Your task to perform on an android device: Do I have any events today? Image 0: 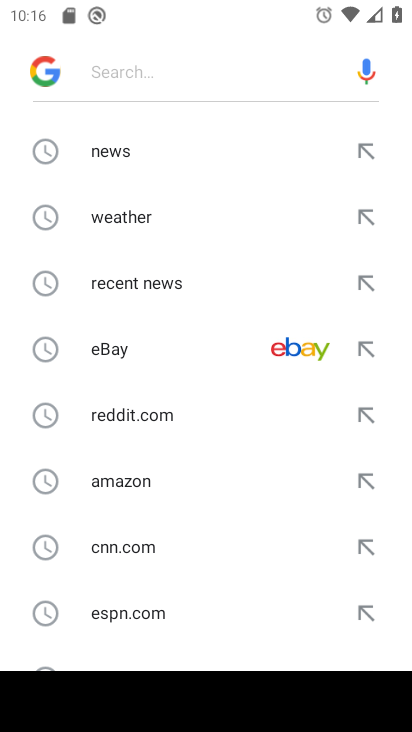
Step 0: press home button
Your task to perform on an android device: Do I have any events today? Image 1: 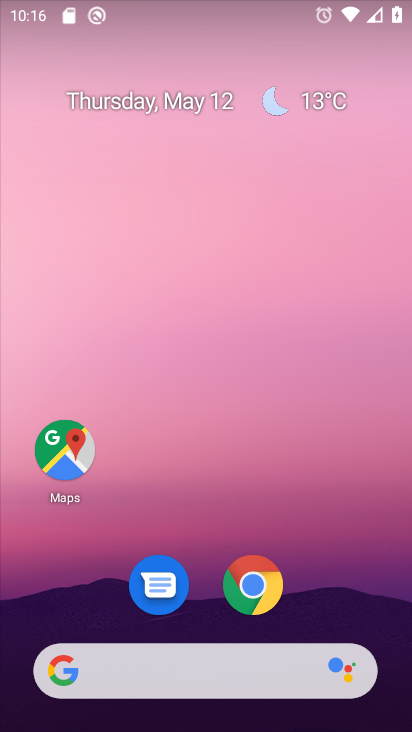
Step 1: drag from (180, 531) to (211, 131)
Your task to perform on an android device: Do I have any events today? Image 2: 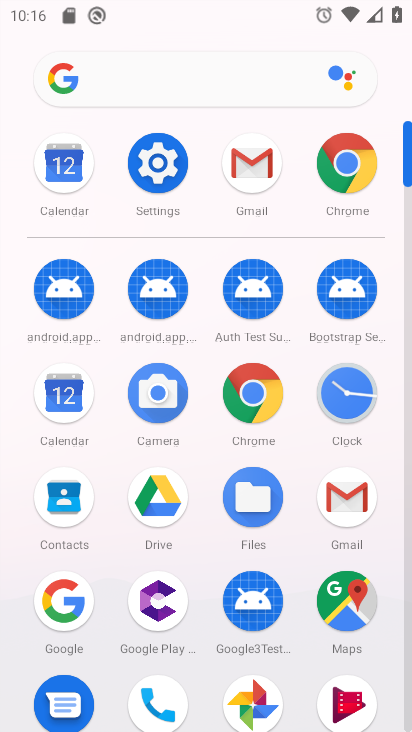
Step 2: click (79, 161)
Your task to perform on an android device: Do I have any events today? Image 3: 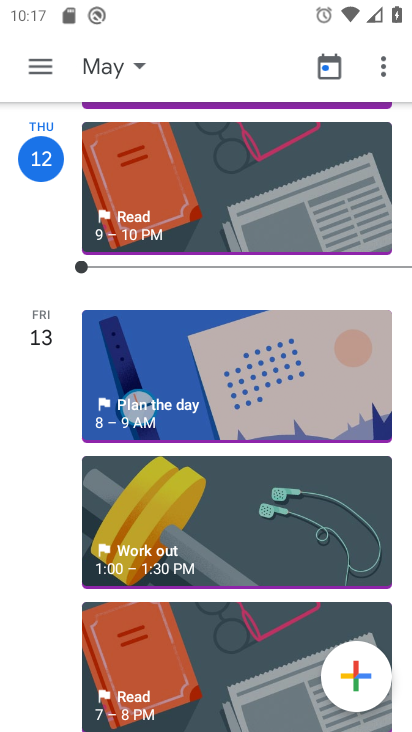
Step 3: task complete